Your task to perform on an android device: Open CNN.com Image 0: 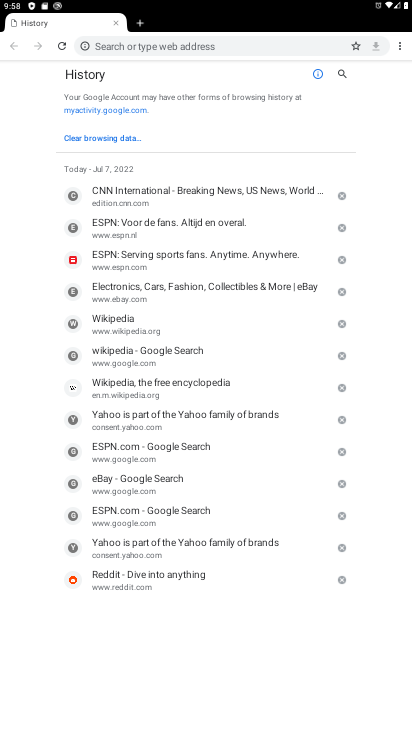
Step 0: click (195, 197)
Your task to perform on an android device: Open CNN.com Image 1: 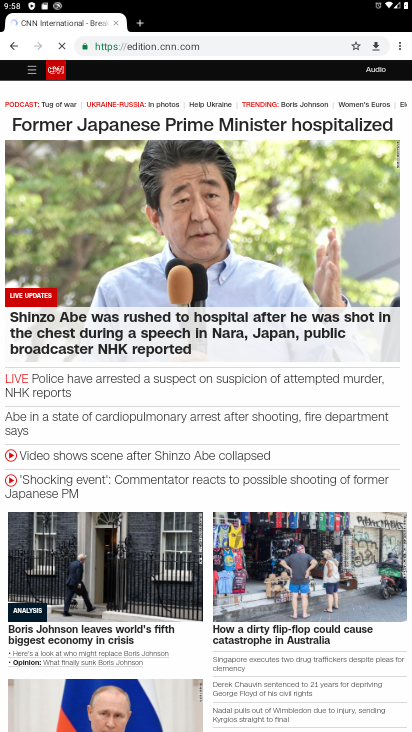
Step 1: task complete